Your task to perform on an android device: Search for a sofa on article.com Image 0: 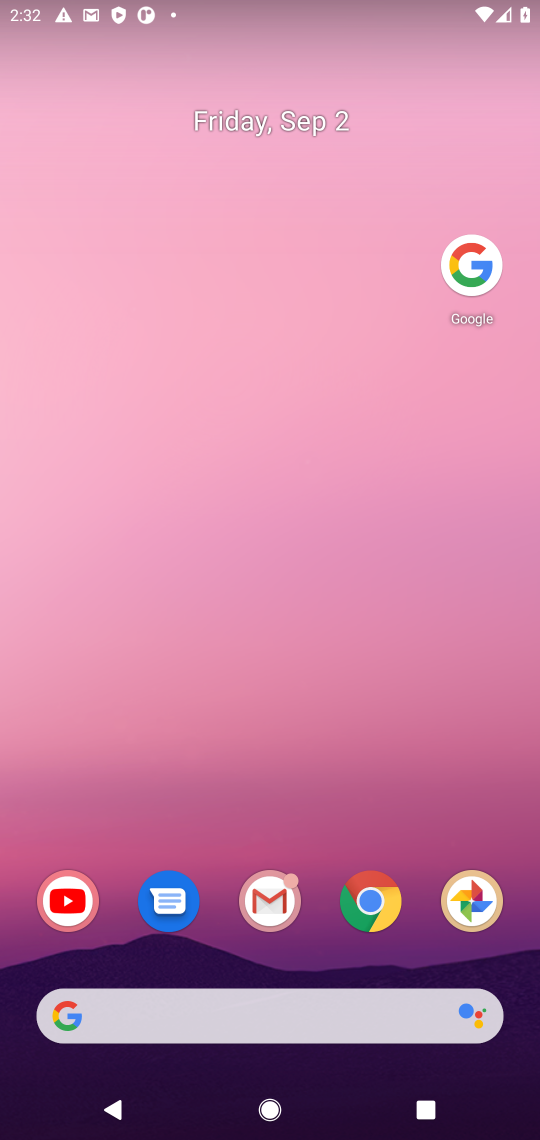
Step 0: click (463, 264)
Your task to perform on an android device: Search for a sofa on article.com Image 1: 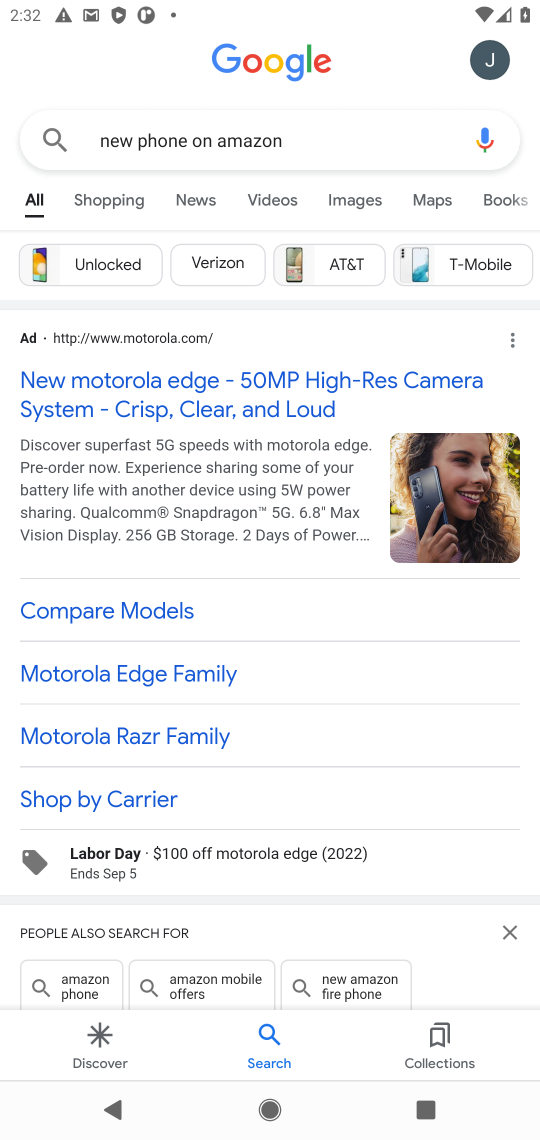
Step 1: click (337, 125)
Your task to perform on an android device: Search for a sofa on article.com Image 2: 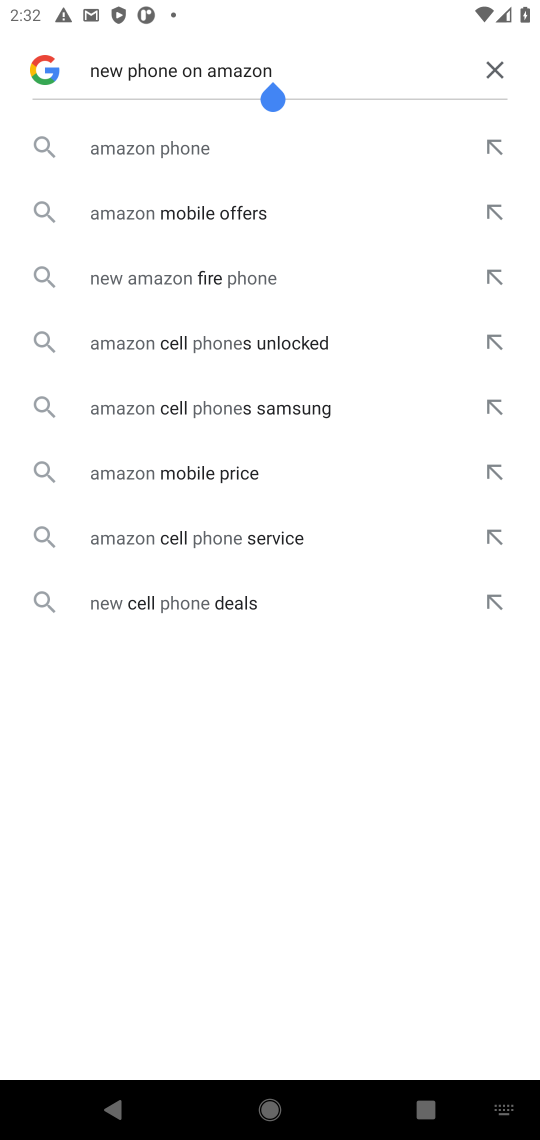
Step 2: click (501, 58)
Your task to perform on an android device: Search for a sofa on article.com Image 3: 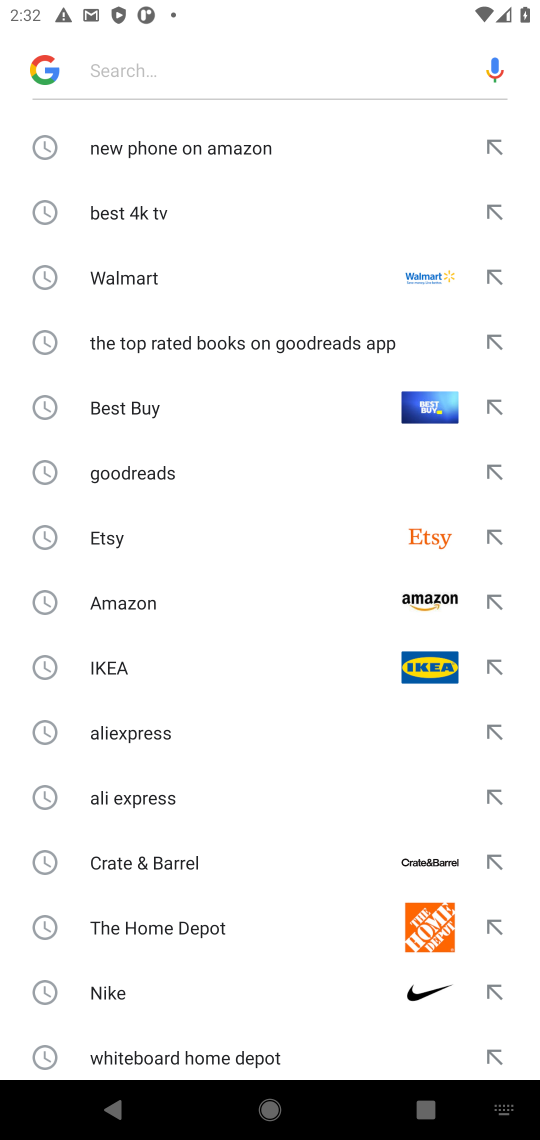
Step 3: click (255, 72)
Your task to perform on an android device: Search for a sofa on article.com Image 4: 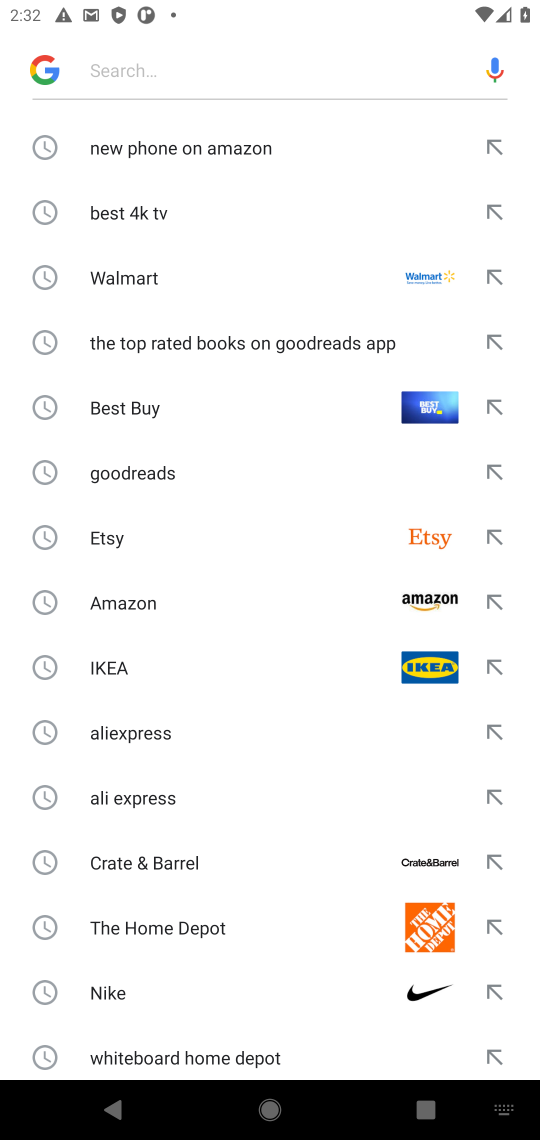
Step 4: type "a sofa on article.com "
Your task to perform on an android device: Search for a sofa on article.com Image 5: 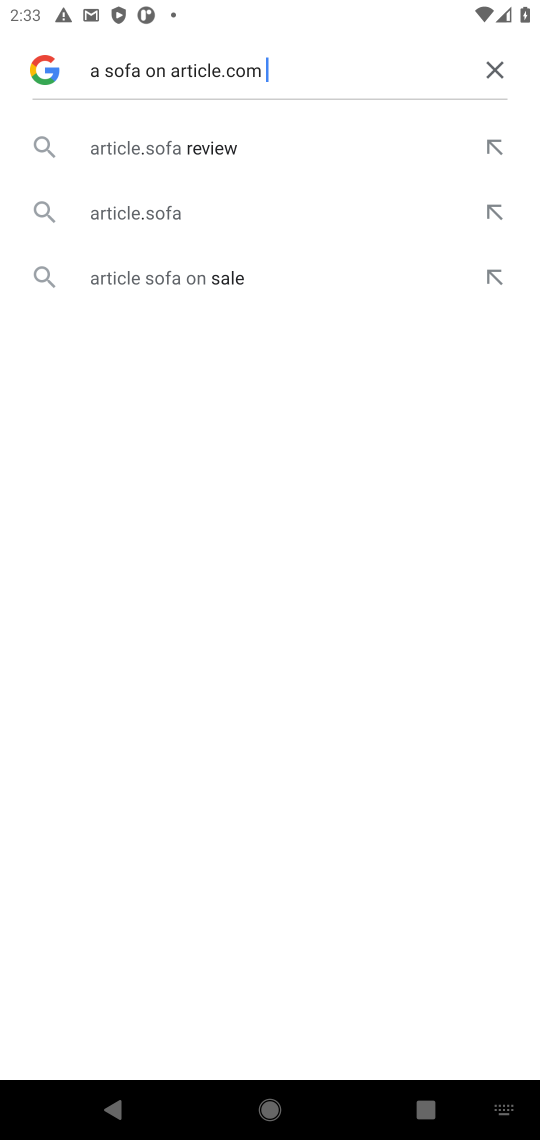
Step 5: click (193, 151)
Your task to perform on an android device: Search for a sofa on article.com Image 6: 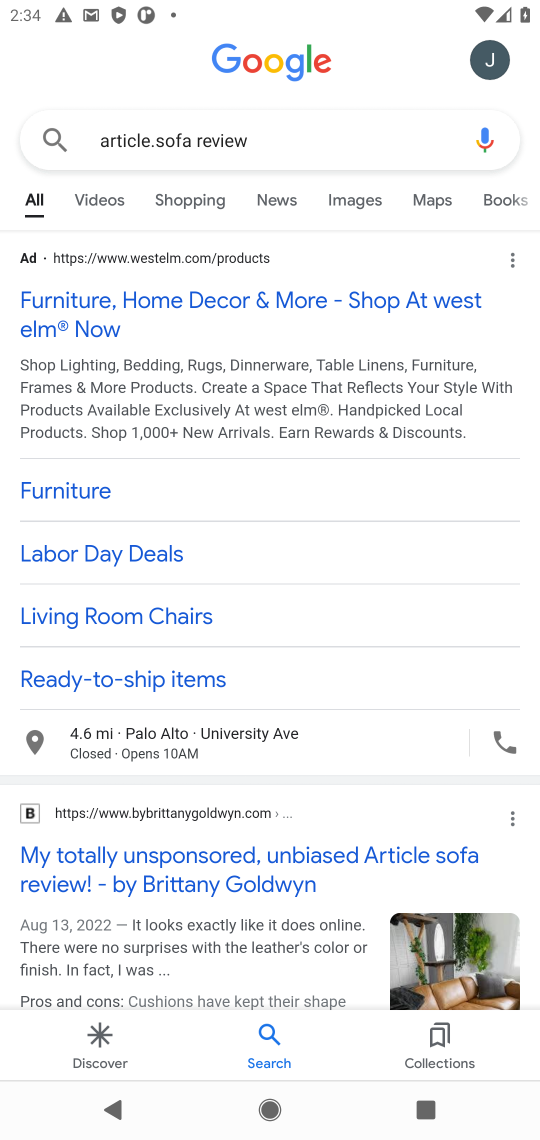
Step 6: task complete